Your task to perform on an android device: check google app version Image 0: 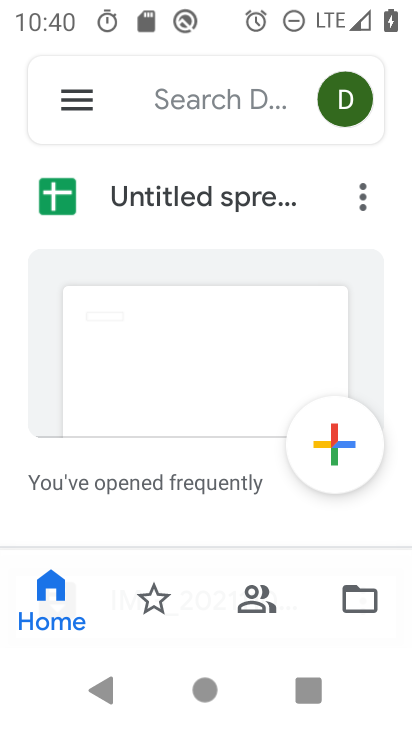
Step 0: drag from (222, 555) to (262, 255)
Your task to perform on an android device: check google app version Image 1: 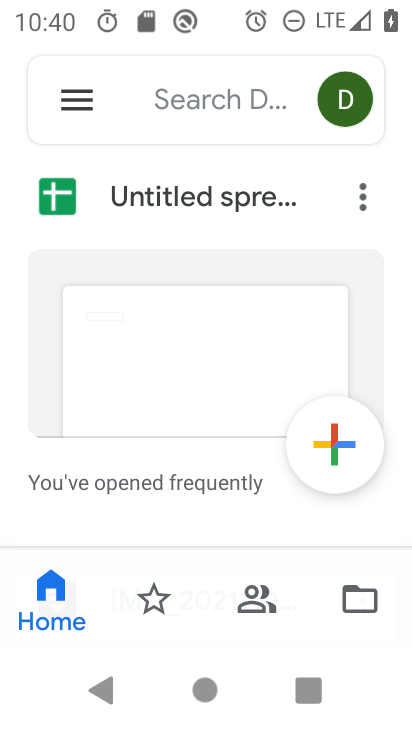
Step 1: drag from (185, 492) to (234, 290)
Your task to perform on an android device: check google app version Image 2: 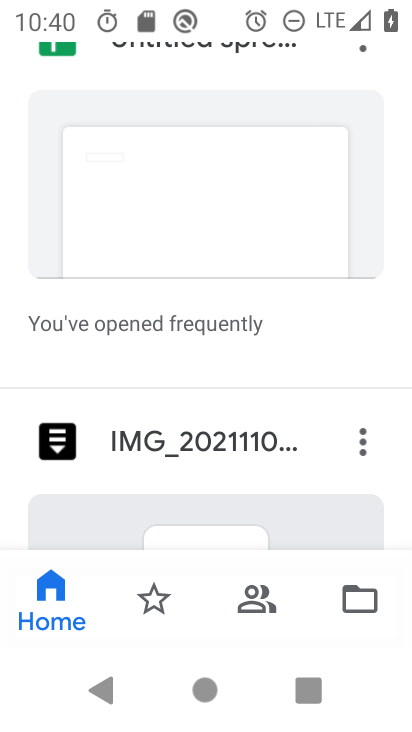
Step 2: drag from (253, 311) to (264, 607)
Your task to perform on an android device: check google app version Image 3: 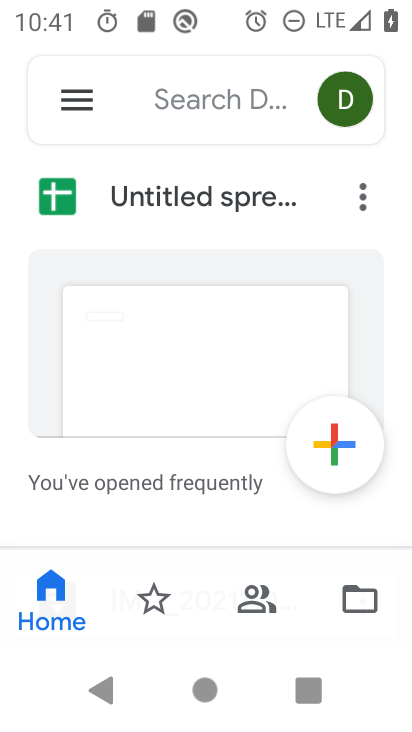
Step 3: click (76, 100)
Your task to perform on an android device: check google app version Image 4: 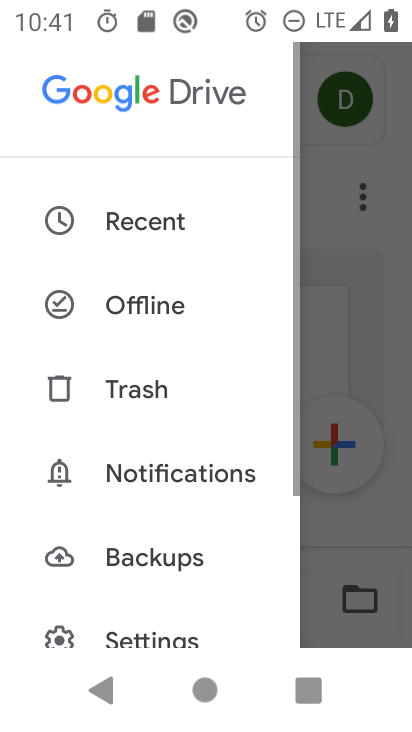
Step 4: drag from (139, 560) to (204, 85)
Your task to perform on an android device: check google app version Image 5: 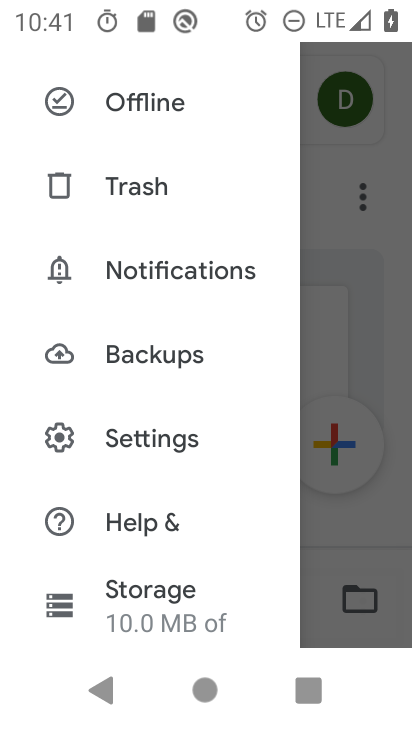
Step 5: drag from (136, 592) to (160, 275)
Your task to perform on an android device: check google app version Image 6: 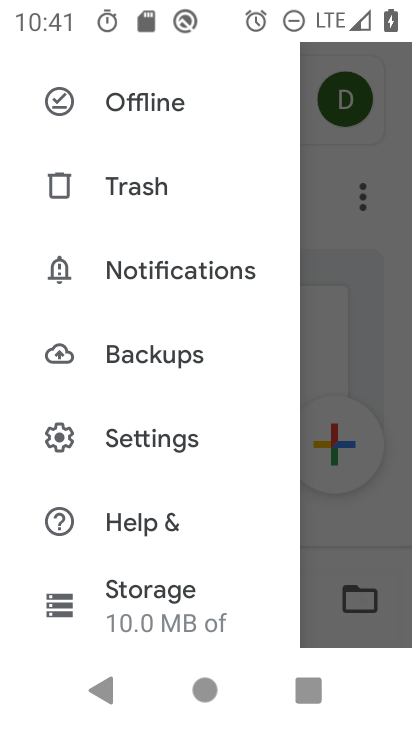
Step 6: press home button
Your task to perform on an android device: check google app version Image 7: 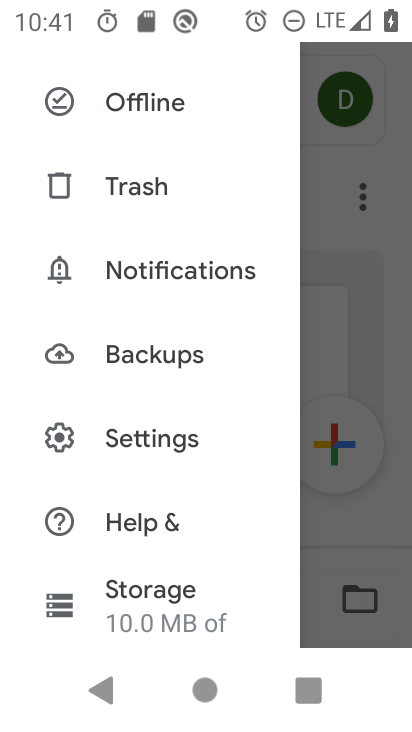
Step 7: press home button
Your task to perform on an android device: check google app version Image 8: 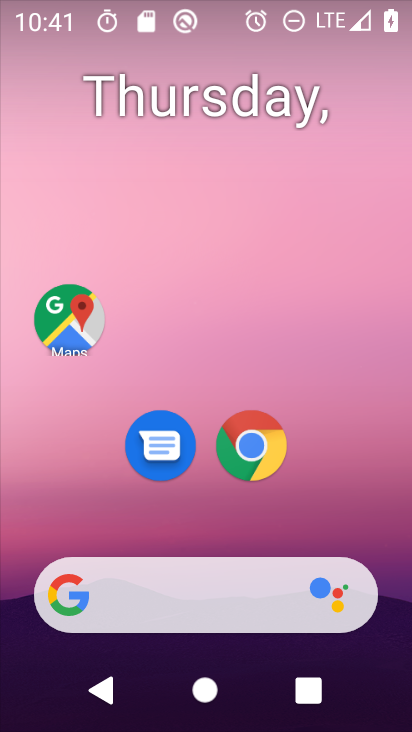
Step 8: drag from (203, 498) to (280, 130)
Your task to perform on an android device: check google app version Image 9: 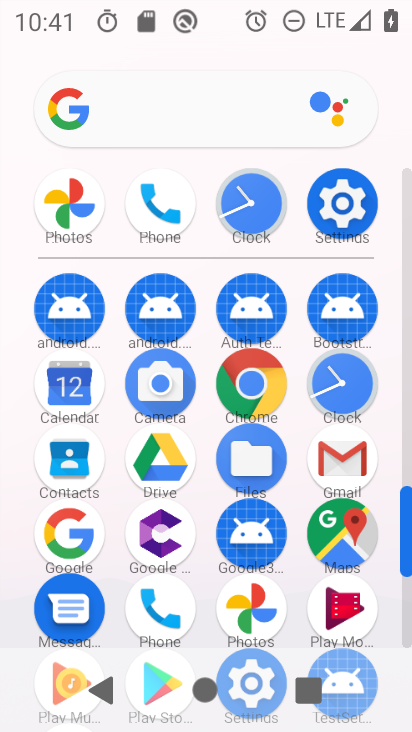
Step 9: drag from (214, 621) to (216, 279)
Your task to perform on an android device: check google app version Image 10: 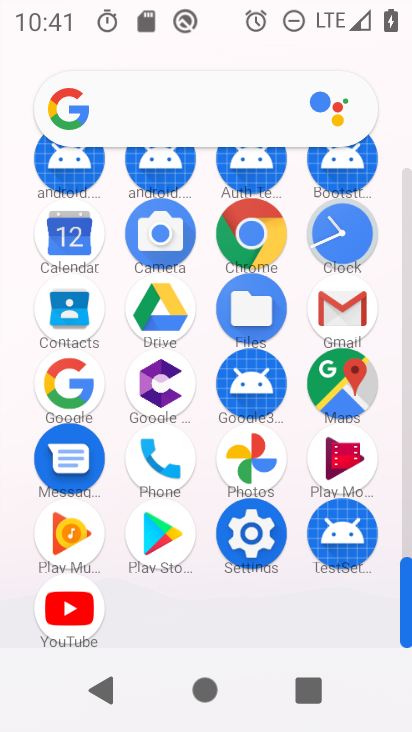
Step 10: click (62, 388)
Your task to perform on an android device: check google app version Image 11: 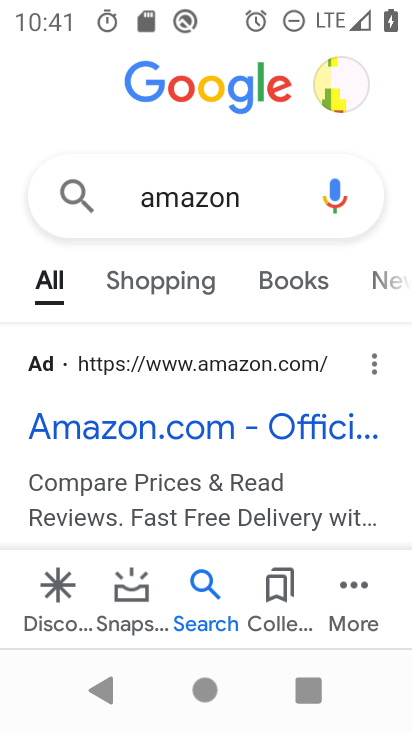
Step 11: click (352, 569)
Your task to perform on an android device: check google app version Image 12: 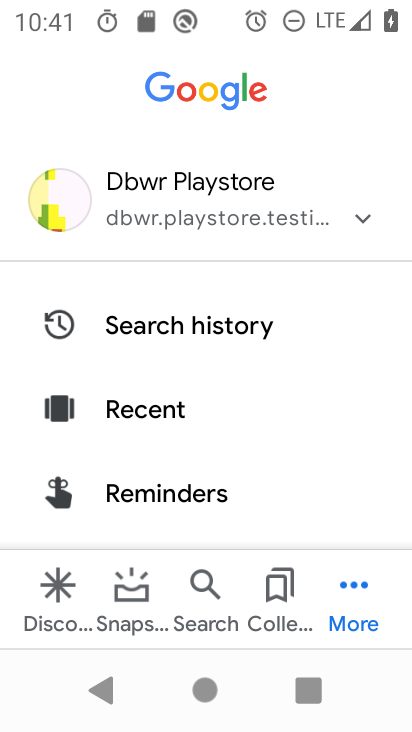
Step 12: drag from (263, 505) to (242, 70)
Your task to perform on an android device: check google app version Image 13: 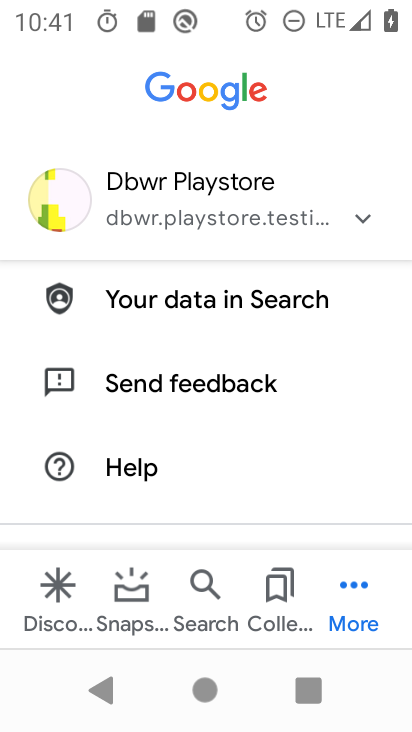
Step 13: drag from (231, 312) to (180, 500)
Your task to perform on an android device: check google app version Image 14: 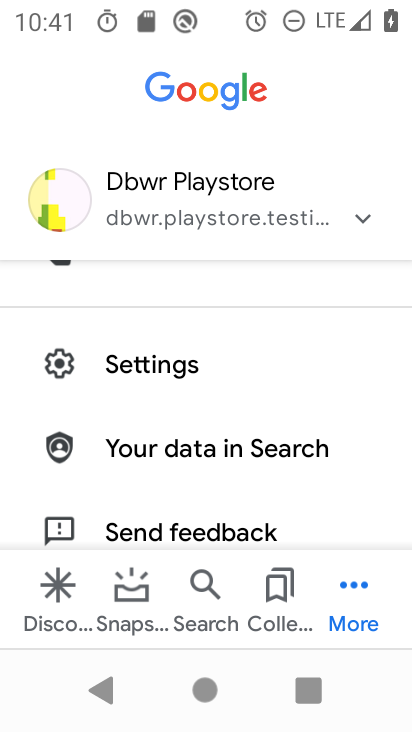
Step 14: click (157, 358)
Your task to perform on an android device: check google app version Image 15: 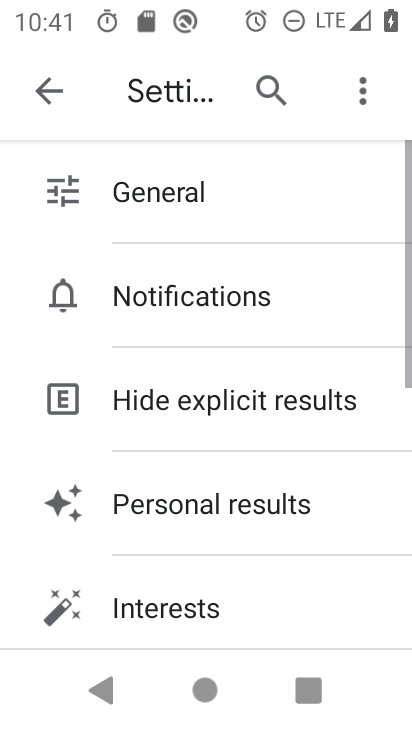
Step 15: drag from (238, 553) to (320, 206)
Your task to perform on an android device: check google app version Image 16: 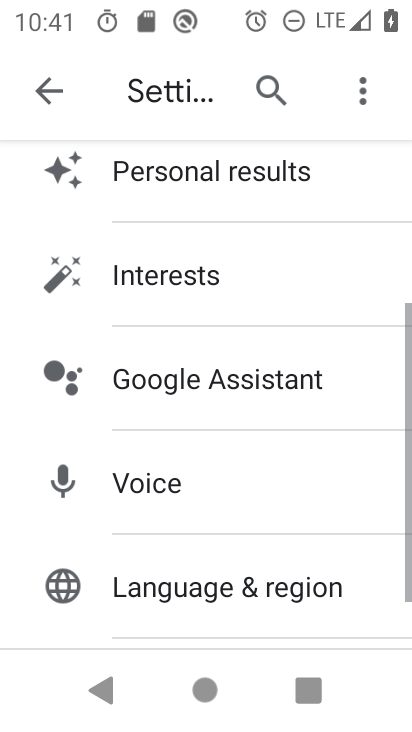
Step 16: drag from (192, 570) to (271, 108)
Your task to perform on an android device: check google app version Image 17: 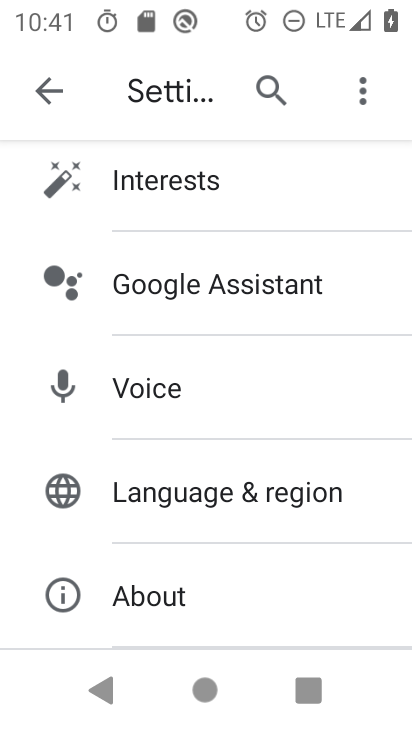
Step 17: click (201, 604)
Your task to perform on an android device: check google app version Image 18: 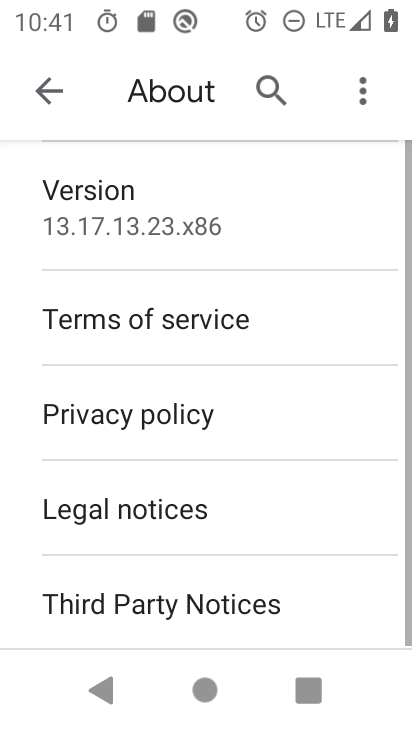
Step 18: drag from (208, 575) to (264, 155)
Your task to perform on an android device: check google app version Image 19: 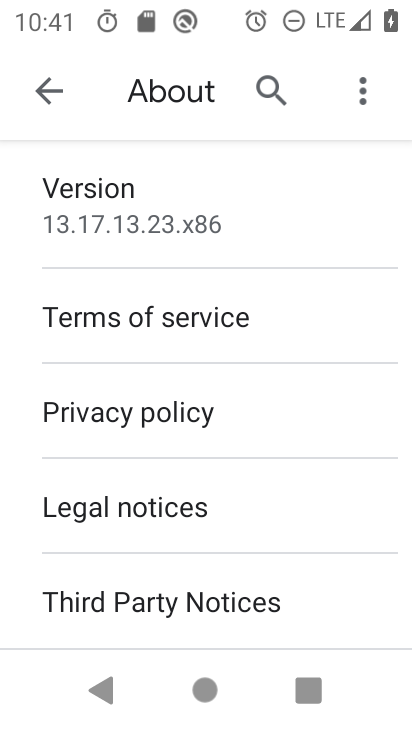
Step 19: click (189, 216)
Your task to perform on an android device: check google app version Image 20: 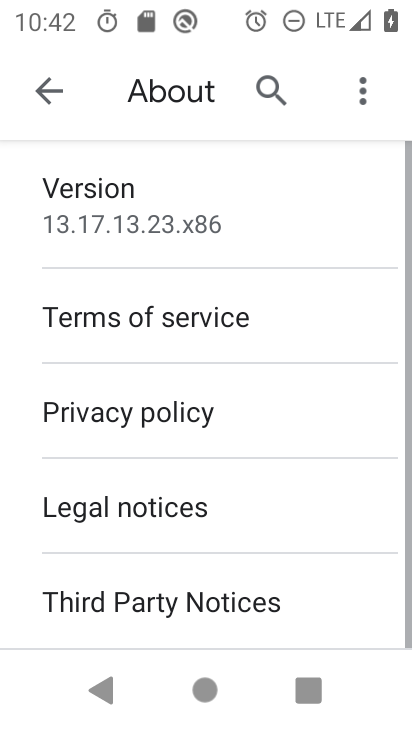
Step 20: task complete